Your task to perform on an android device: Open calendar and show me the third week of next month Image 0: 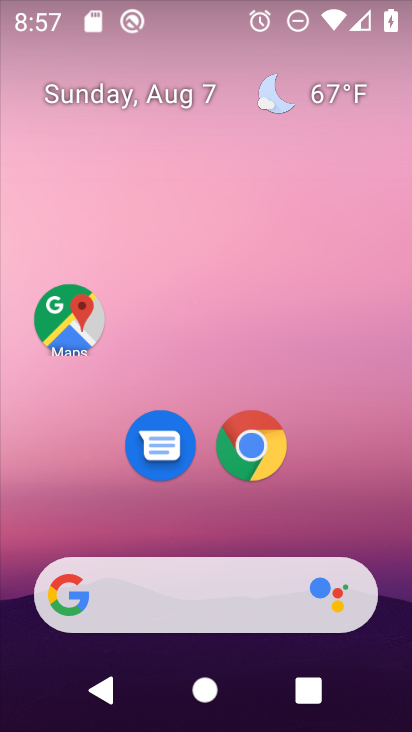
Step 0: drag from (199, 524) to (177, 53)
Your task to perform on an android device: Open calendar and show me the third week of next month Image 1: 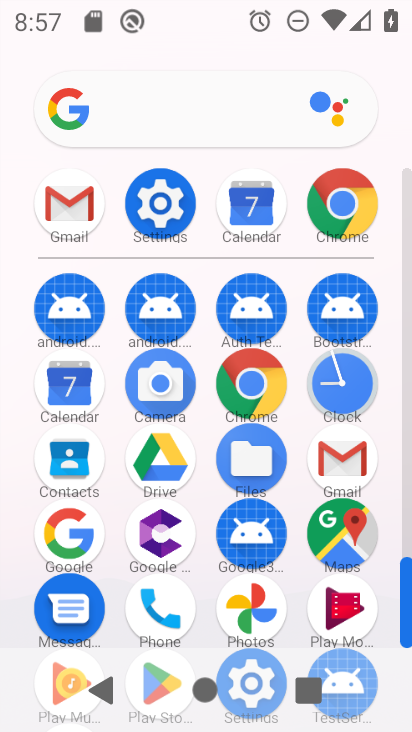
Step 1: click (66, 384)
Your task to perform on an android device: Open calendar and show me the third week of next month Image 2: 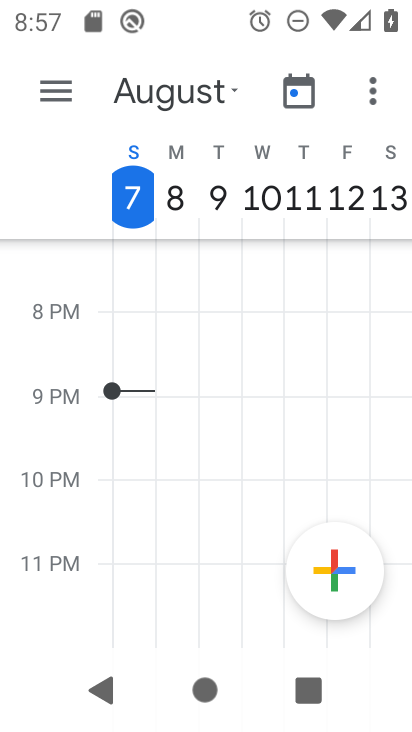
Step 2: click (223, 88)
Your task to perform on an android device: Open calendar and show me the third week of next month Image 3: 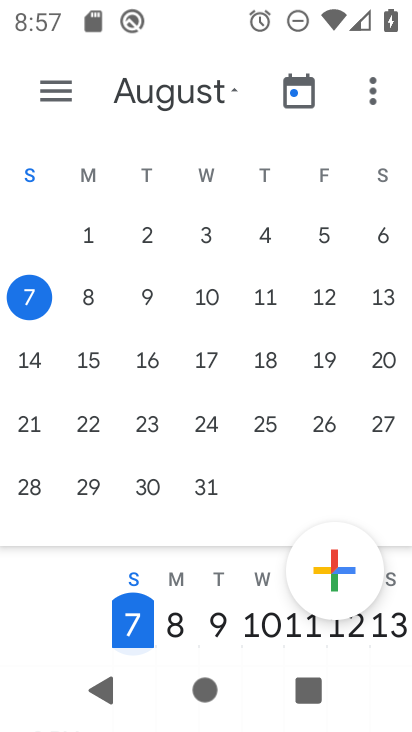
Step 3: drag from (369, 340) to (10, 334)
Your task to perform on an android device: Open calendar and show me the third week of next month Image 4: 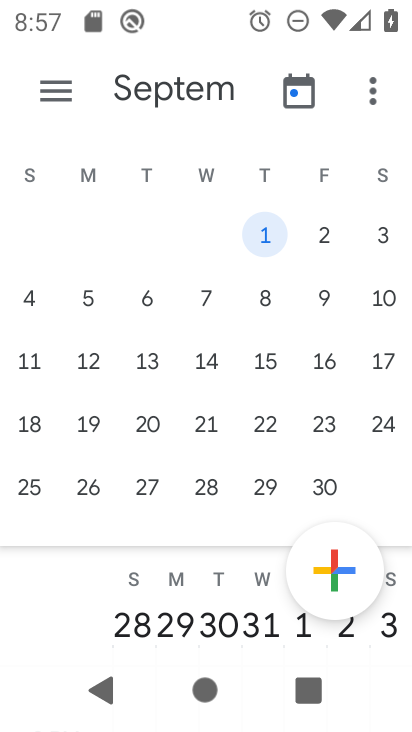
Step 4: click (20, 418)
Your task to perform on an android device: Open calendar and show me the third week of next month Image 5: 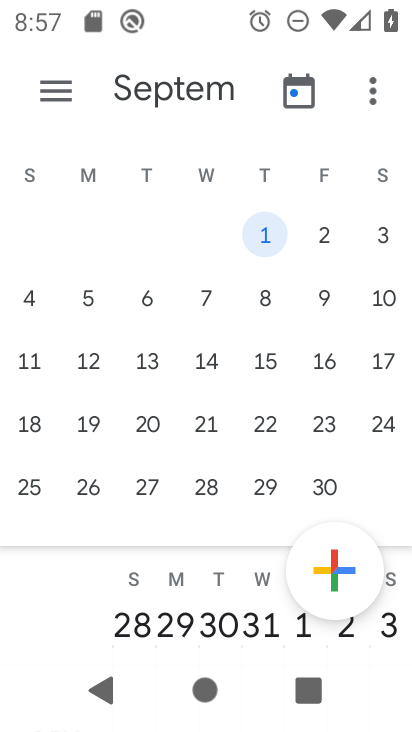
Step 5: click (32, 419)
Your task to perform on an android device: Open calendar and show me the third week of next month Image 6: 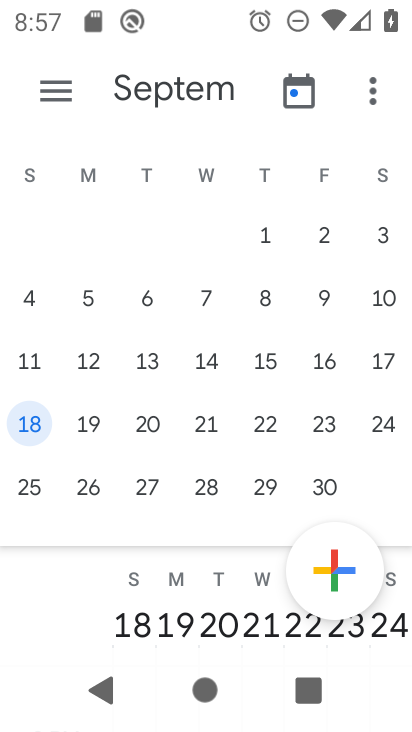
Step 6: click (216, 89)
Your task to perform on an android device: Open calendar and show me the third week of next month Image 7: 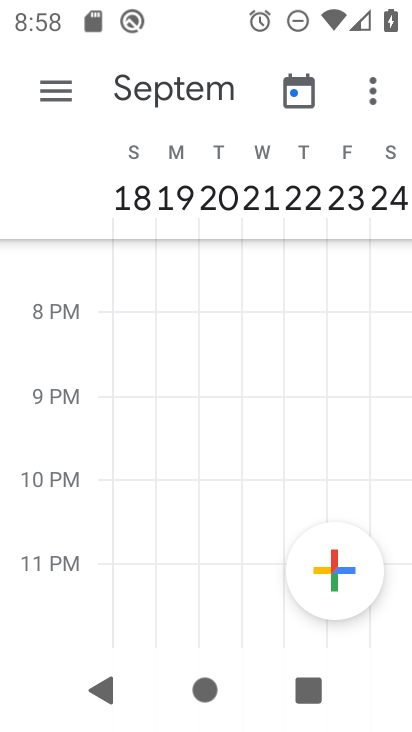
Step 7: click (136, 193)
Your task to perform on an android device: Open calendar and show me the third week of next month Image 8: 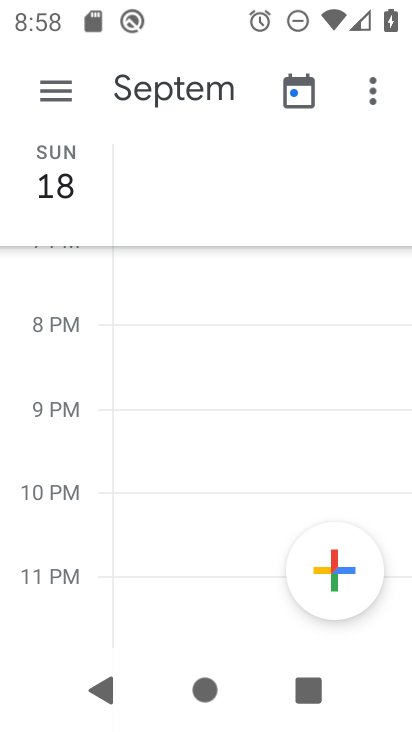
Step 8: click (70, 199)
Your task to perform on an android device: Open calendar and show me the third week of next month Image 9: 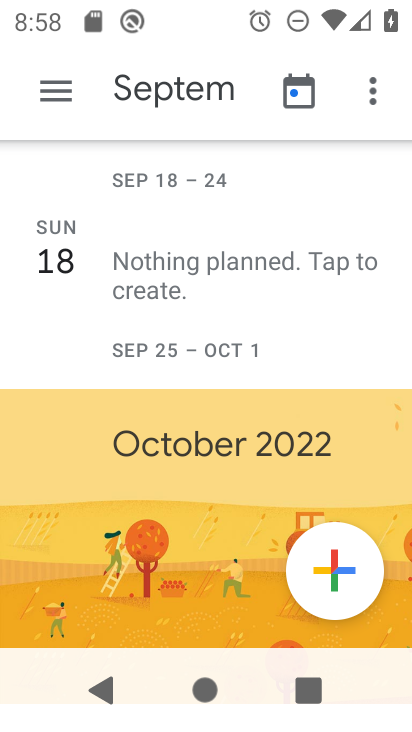
Step 9: task complete